Your task to perform on an android device: Open the calendar app, open the side menu, and click the "Day" option Image 0: 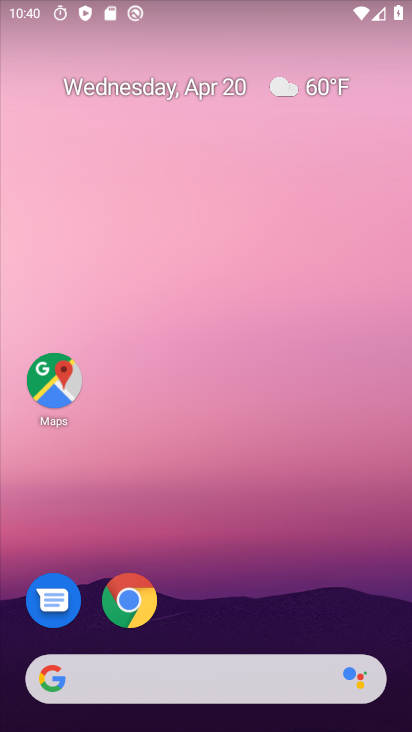
Step 0: click (166, 99)
Your task to perform on an android device: Open the calendar app, open the side menu, and click the "Day" option Image 1: 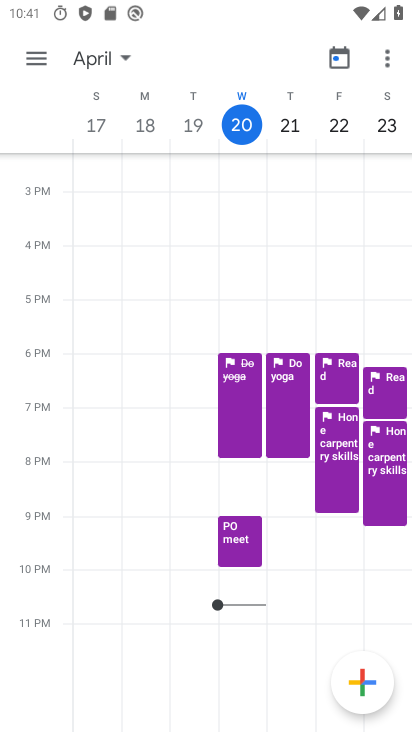
Step 1: click (49, 56)
Your task to perform on an android device: Open the calendar app, open the side menu, and click the "Day" option Image 2: 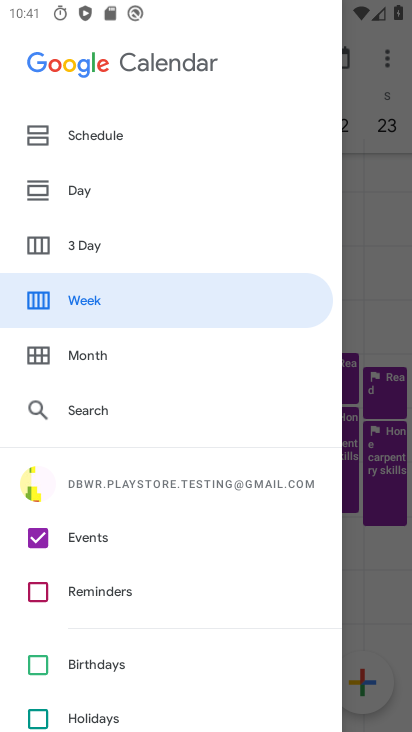
Step 2: click (56, 178)
Your task to perform on an android device: Open the calendar app, open the side menu, and click the "Day" option Image 3: 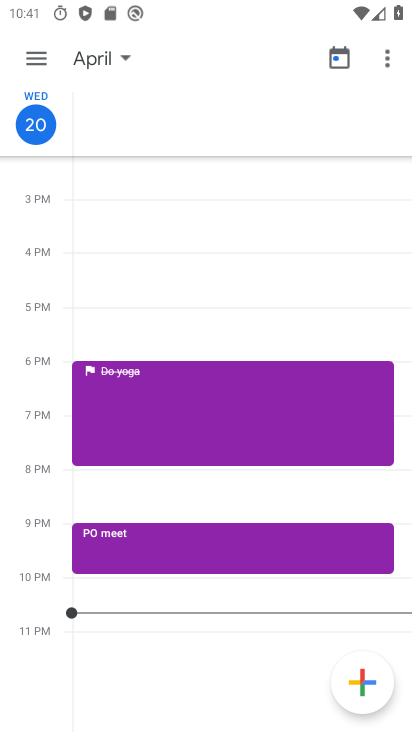
Step 3: task complete